Your task to perform on an android device: Check the news Image 0: 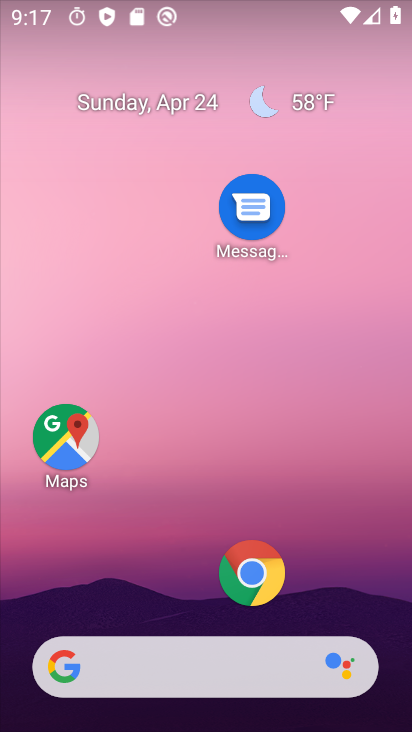
Step 0: click (321, 336)
Your task to perform on an android device: Check the news Image 1: 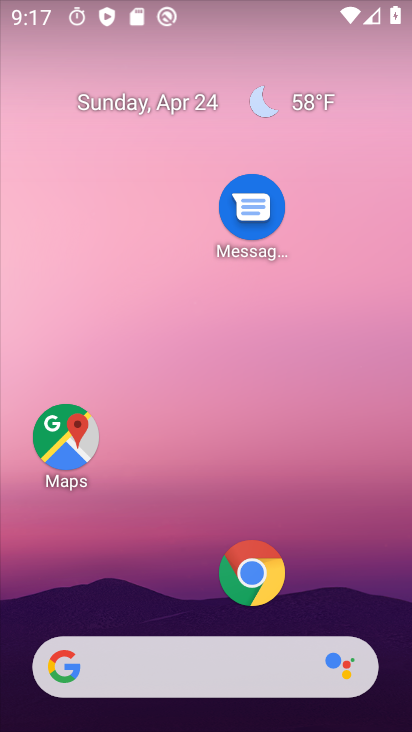
Step 1: click (190, 659)
Your task to perform on an android device: Check the news Image 2: 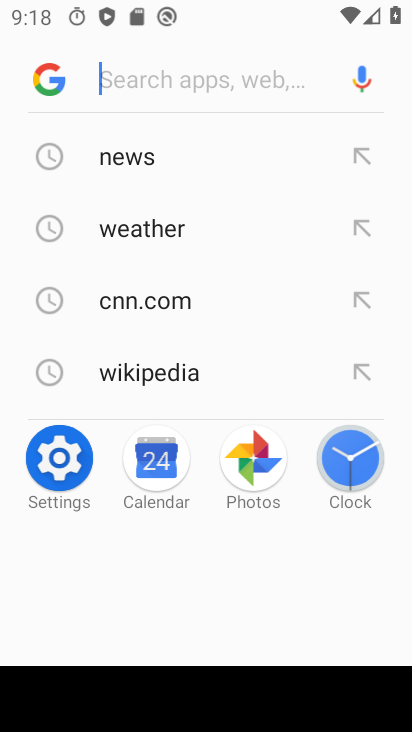
Step 2: click (116, 159)
Your task to perform on an android device: Check the news Image 3: 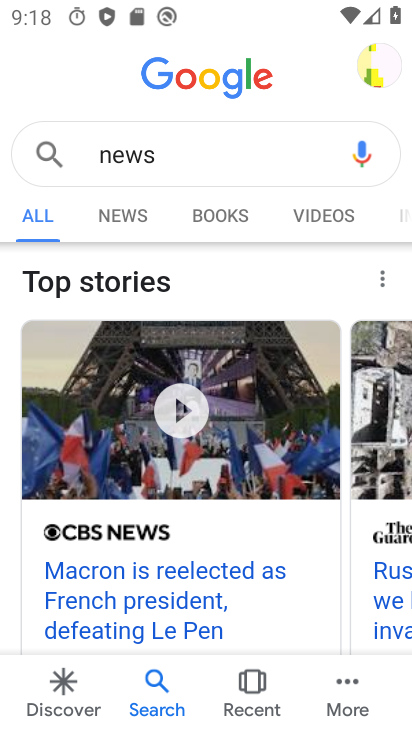
Step 3: task complete